Your task to perform on an android device: toggle data saver in the chrome app Image 0: 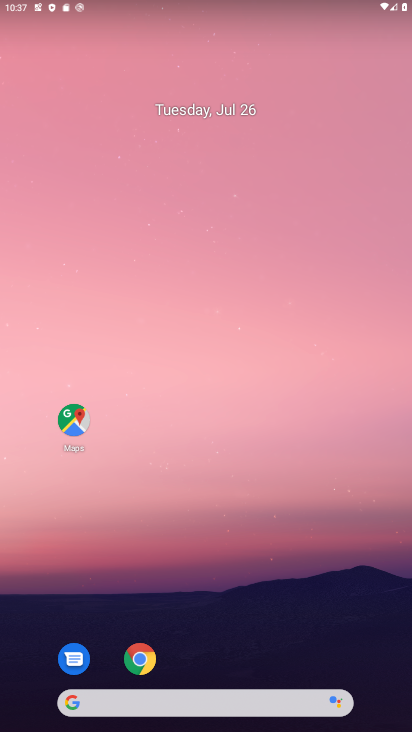
Step 0: drag from (214, 628) to (256, 182)
Your task to perform on an android device: toggle data saver in the chrome app Image 1: 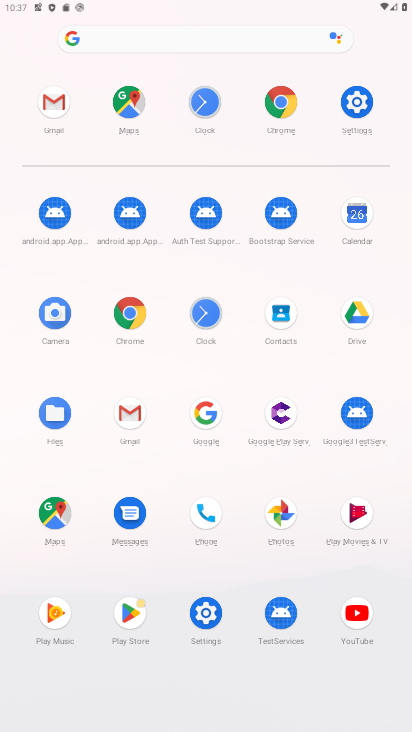
Step 1: click (127, 308)
Your task to perform on an android device: toggle data saver in the chrome app Image 2: 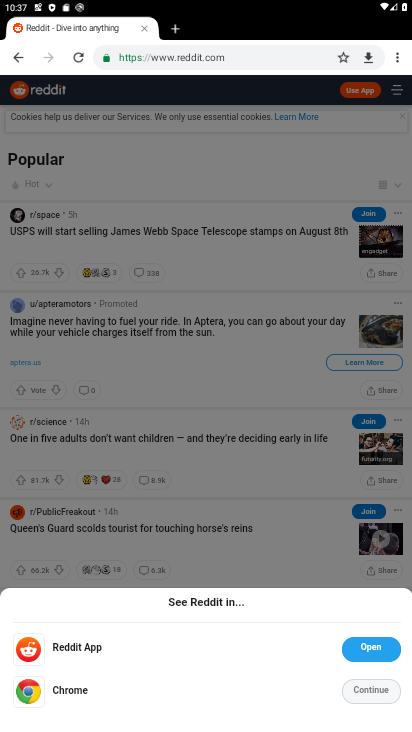
Step 2: drag from (395, 60) to (292, 379)
Your task to perform on an android device: toggle data saver in the chrome app Image 3: 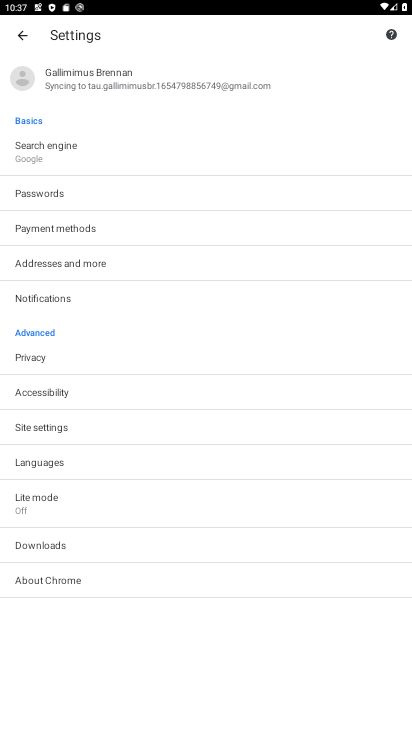
Step 3: click (55, 505)
Your task to perform on an android device: toggle data saver in the chrome app Image 4: 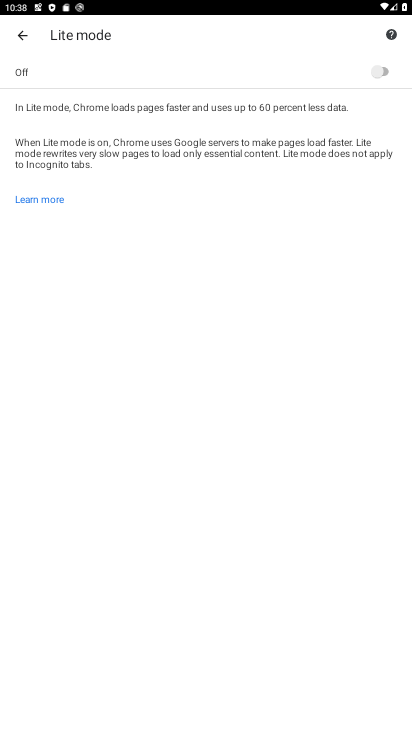
Step 4: click (198, 82)
Your task to perform on an android device: toggle data saver in the chrome app Image 5: 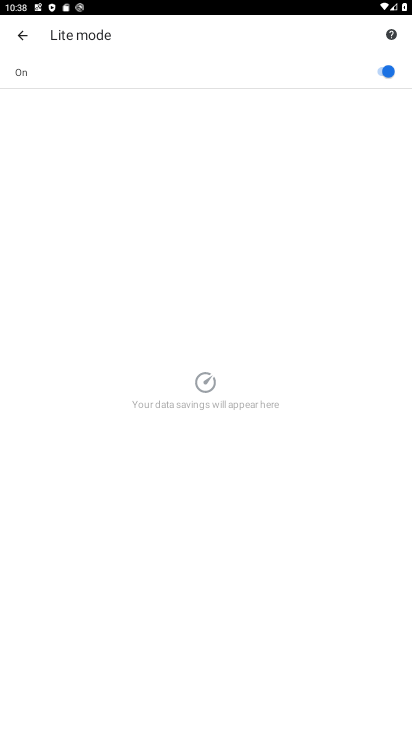
Step 5: task complete